Your task to perform on an android device: Show me recent news Image 0: 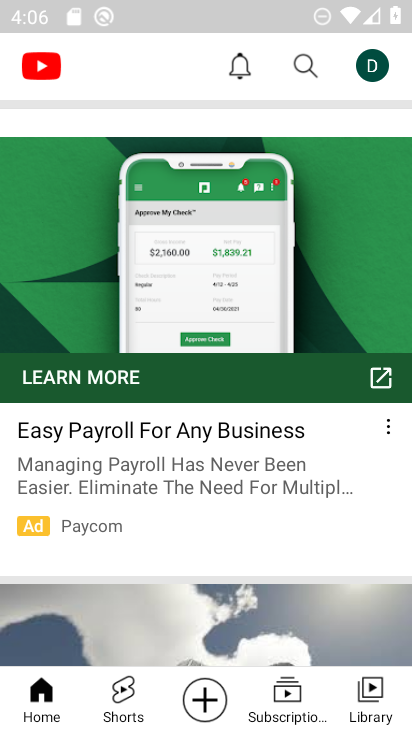
Step 0: press home button
Your task to perform on an android device: Show me recent news Image 1: 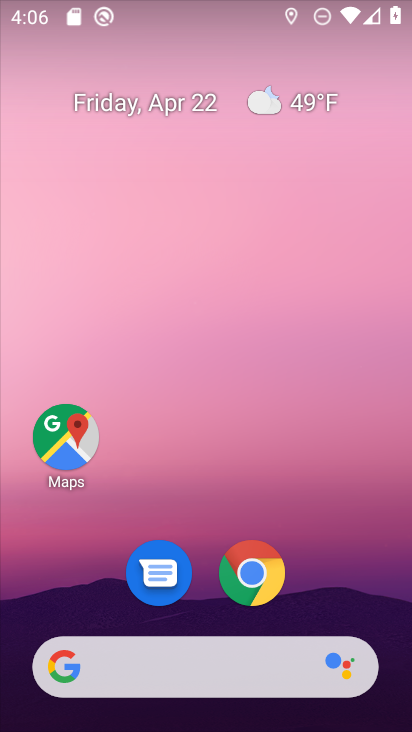
Step 1: drag from (325, 589) to (347, 135)
Your task to perform on an android device: Show me recent news Image 2: 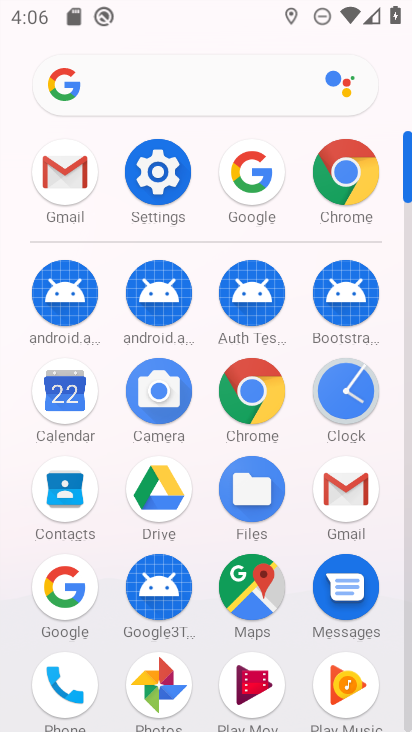
Step 2: click (80, 595)
Your task to perform on an android device: Show me recent news Image 3: 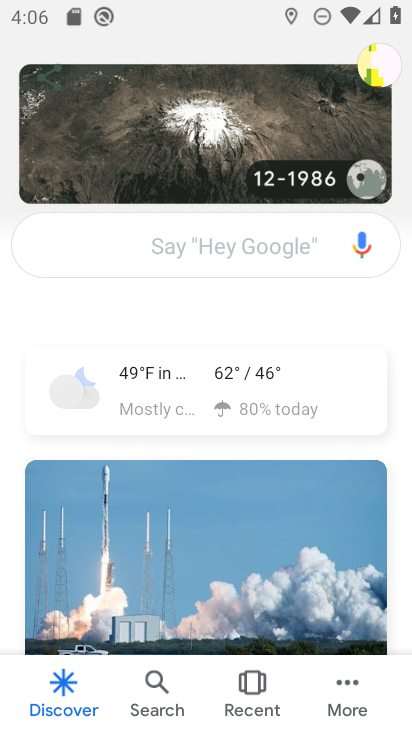
Step 3: click (187, 246)
Your task to perform on an android device: Show me recent news Image 4: 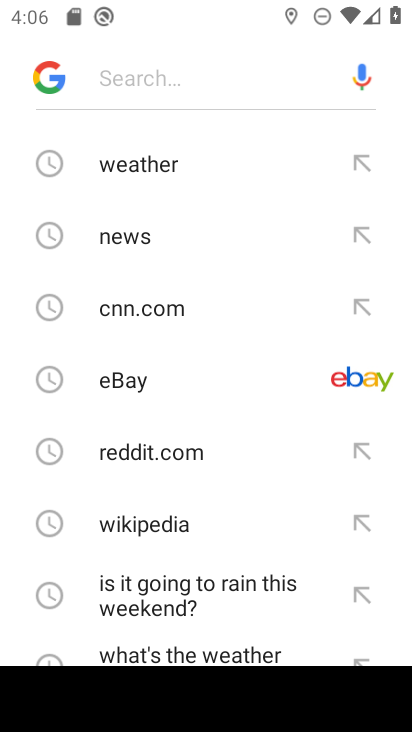
Step 4: click (171, 222)
Your task to perform on an android device: Show me recent news Image 5: 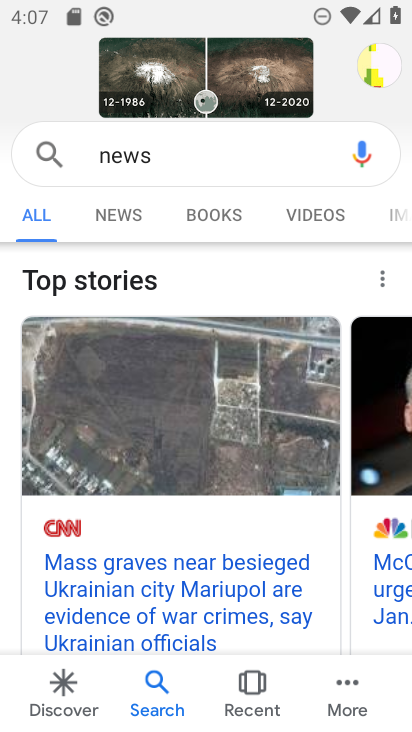
Step 5: task complete